Your task to perform on an android device: Go to location settings Image 0: 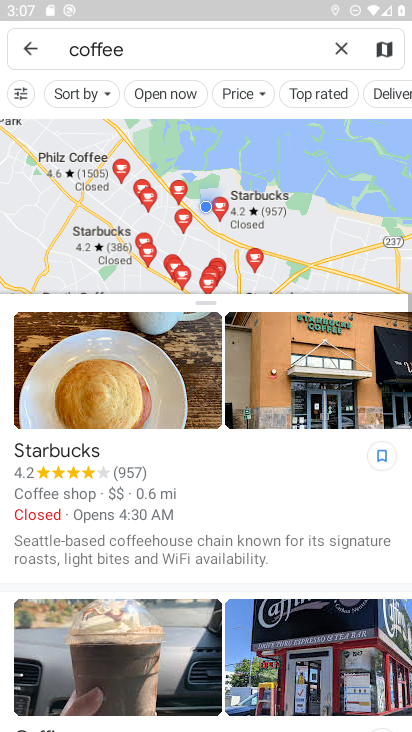
Step 0: press back button
Your task to perform on an android device: Go to location settings Image 1: 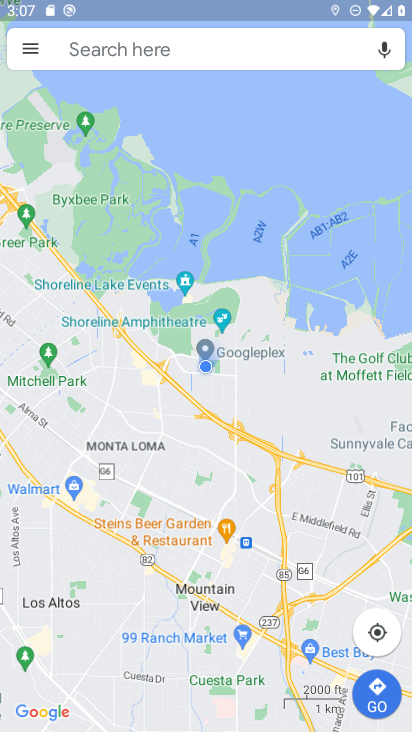
Step 1: press back button
Your task to perform on an android device: Go to location settings Image 2: 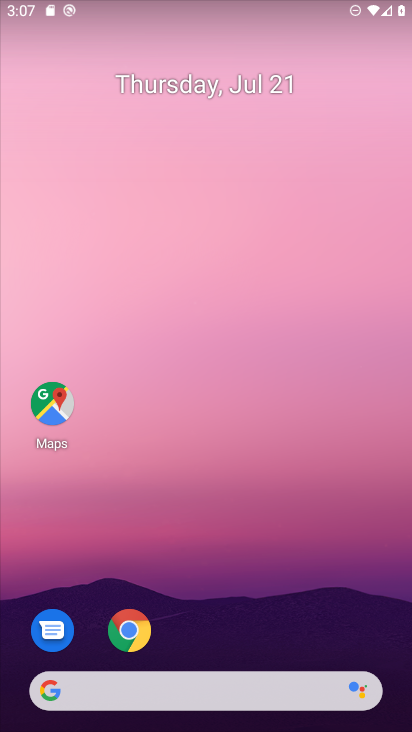
Step 2: drag from (236, 668) to (220, 43)
Your task to perform on an android device: Go to location settings Image 3: 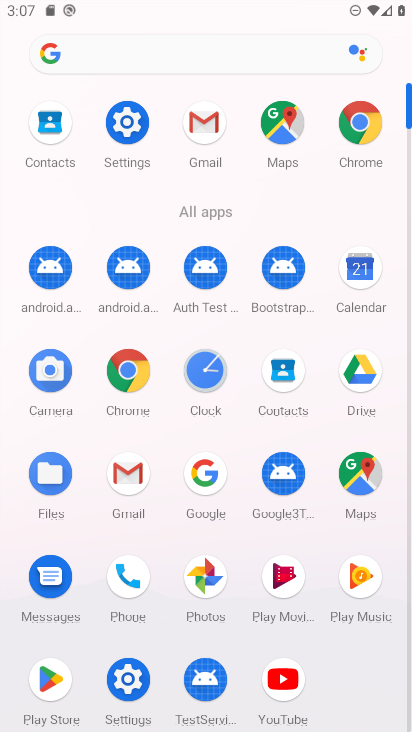
Step 3: click (140, 138)
Your task to perform on an android device: Go to location settings Image 4: 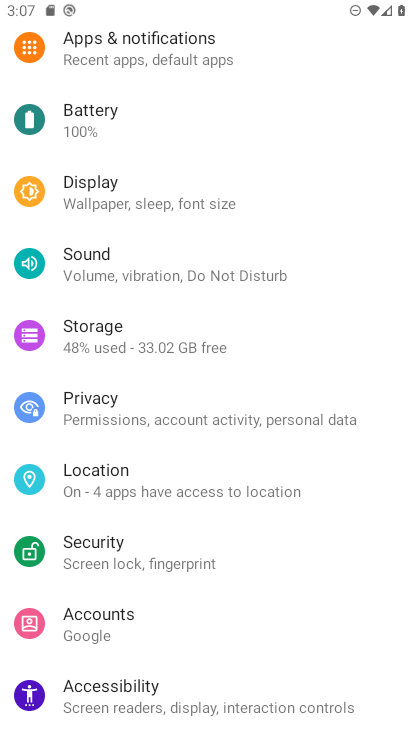
Step 4: click (149, 482)
Your task to perform on an android device: Go to location settings Image 5: 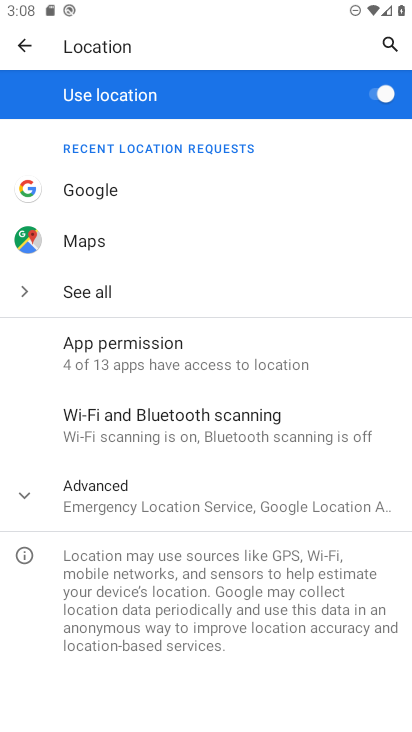
Step 5: task complete